Your task to perform on an android device: turn off wifi Image 0: 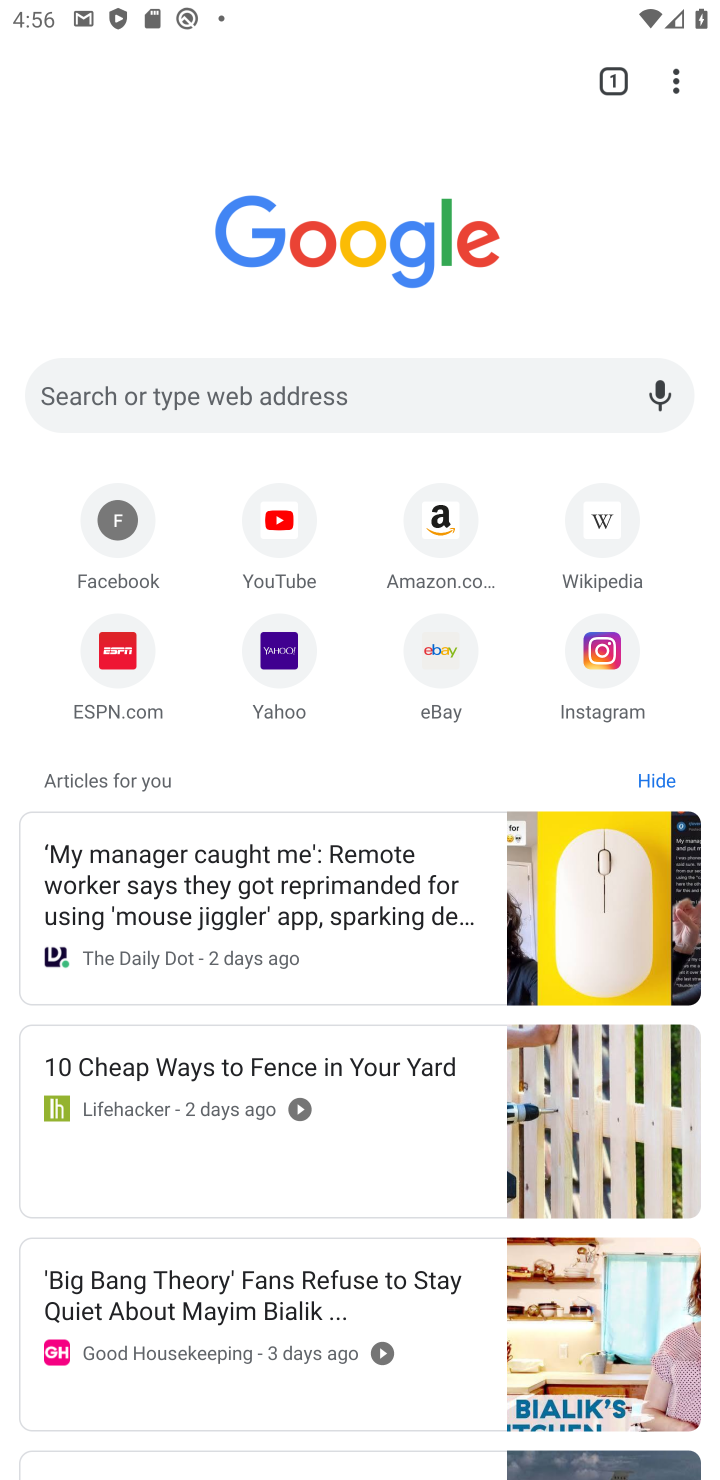
Step 0: press home button
Your task to perform on an android device: turn off wifi Image 1: 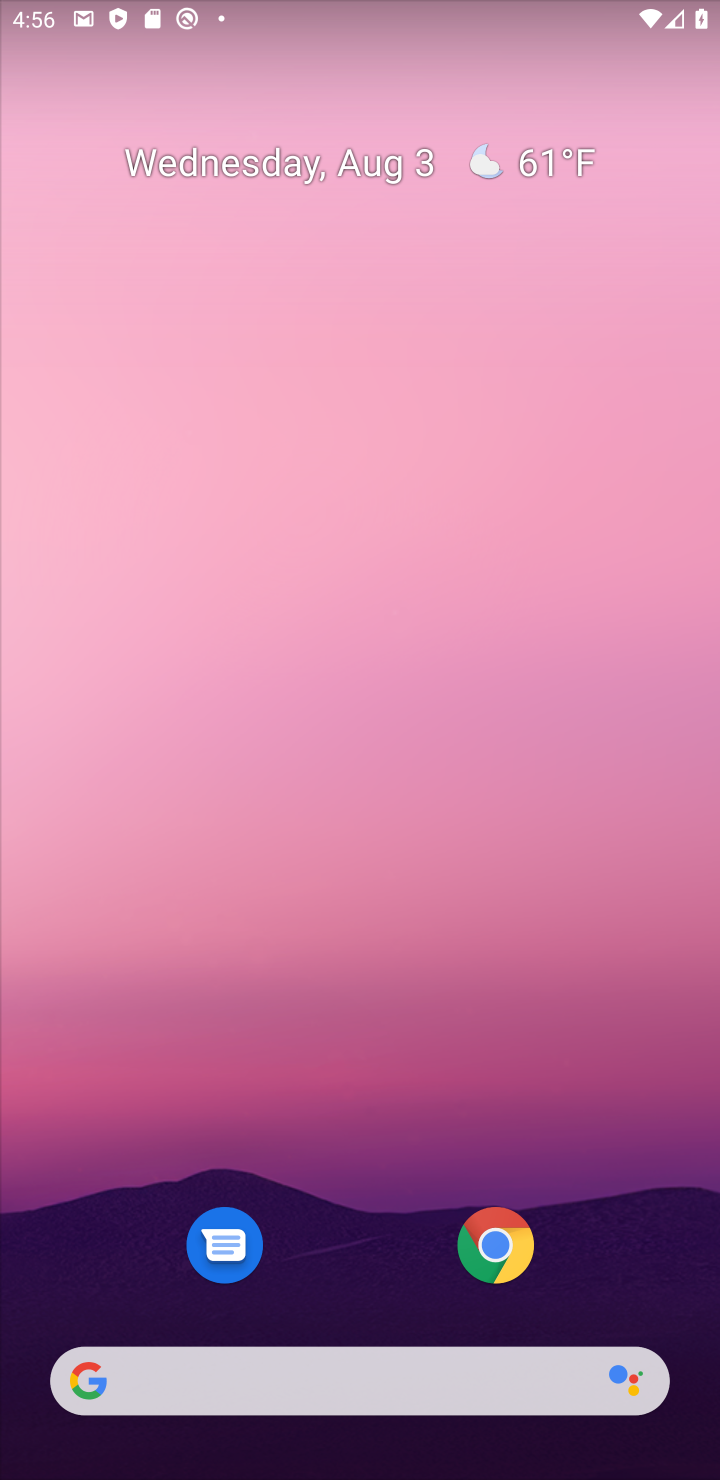
Step 1: drag from (364, 975) to (270, 394)
Your task to perform on an android device: turn off wifi Image 2: 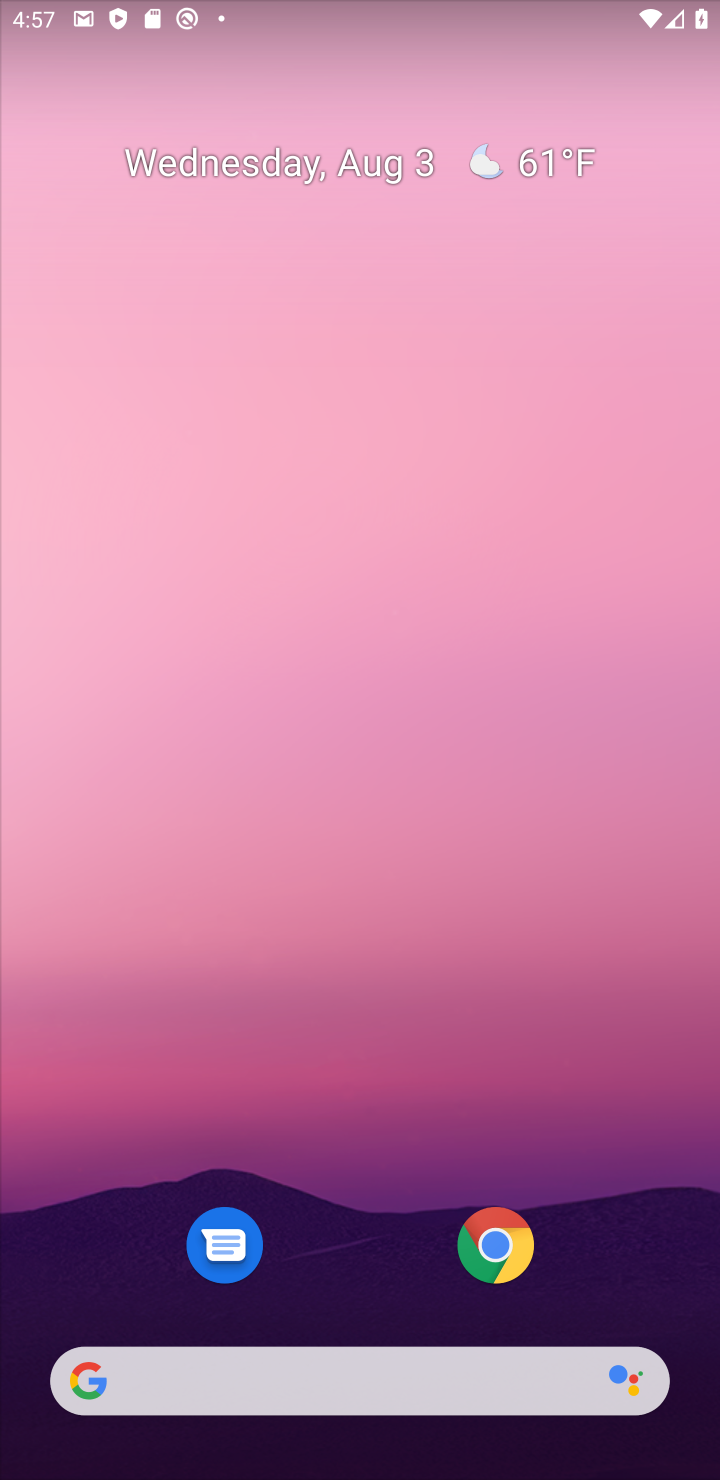
Step 2: drag from (304, 1385) to (353, 299)
Your task to perform on an android device: turn off wifi Image 3: 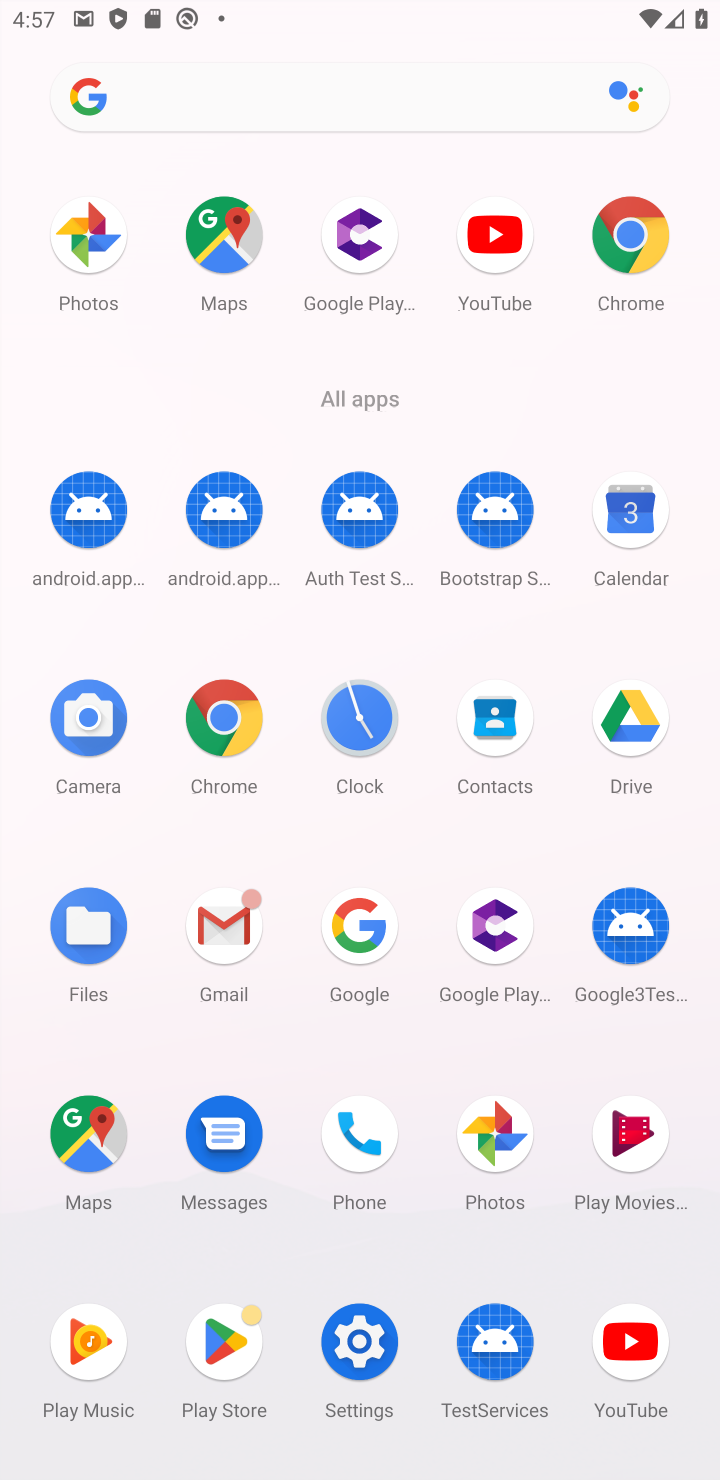
Step 3: click (333, 1393)
Your task to perform on an android device: turn off wifi Image 4: 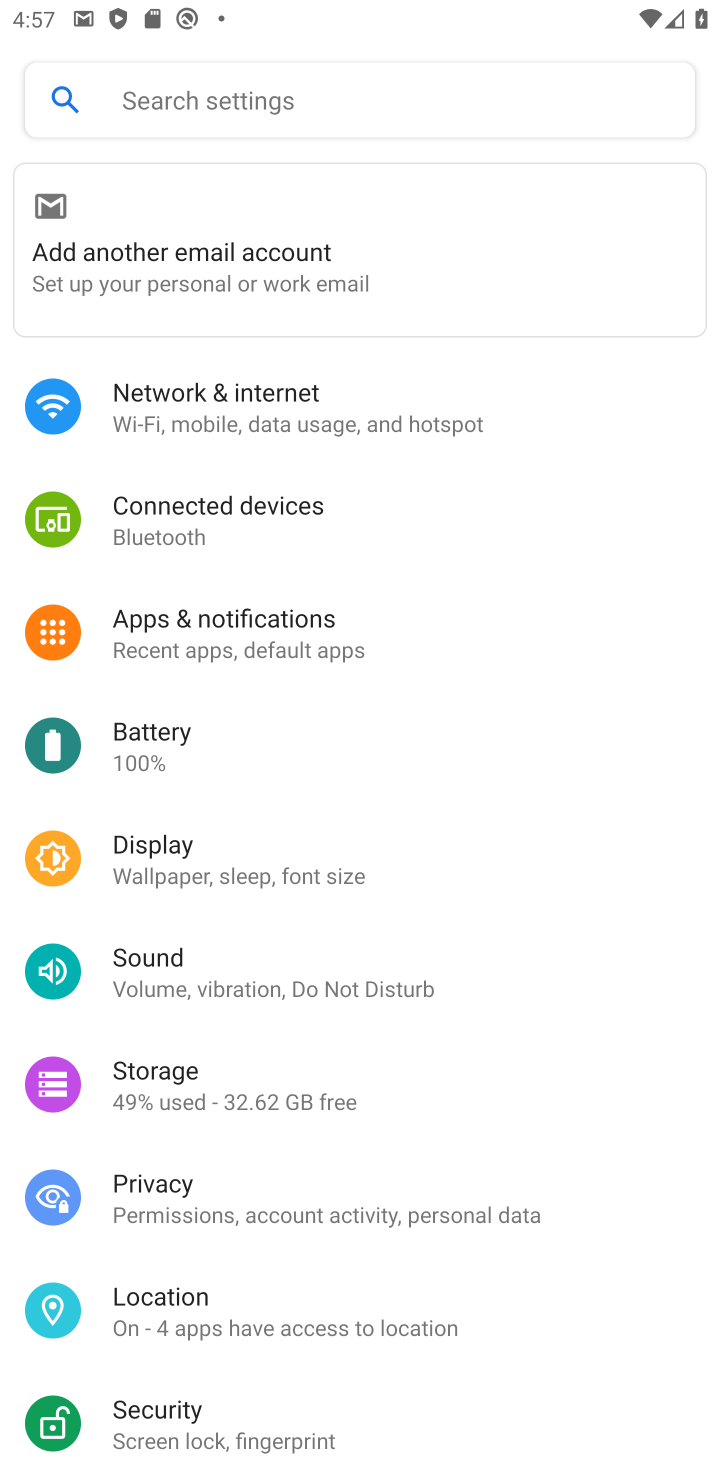
Step 4: click (339, 392)
Your task to perform on an android device: turn off wifi Image 5: 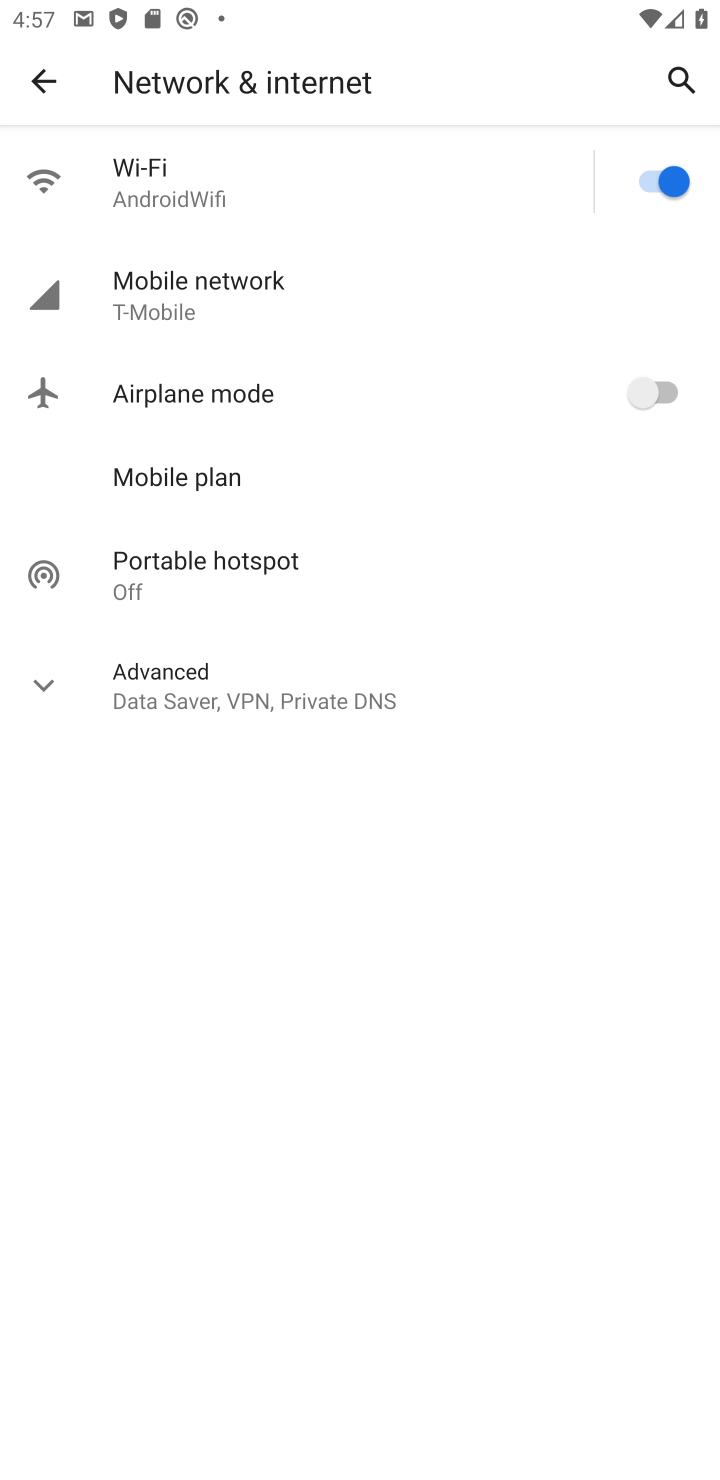
Step 5: click (635, 187)
Your task to perform on an android device: turn off wifi Image 6: 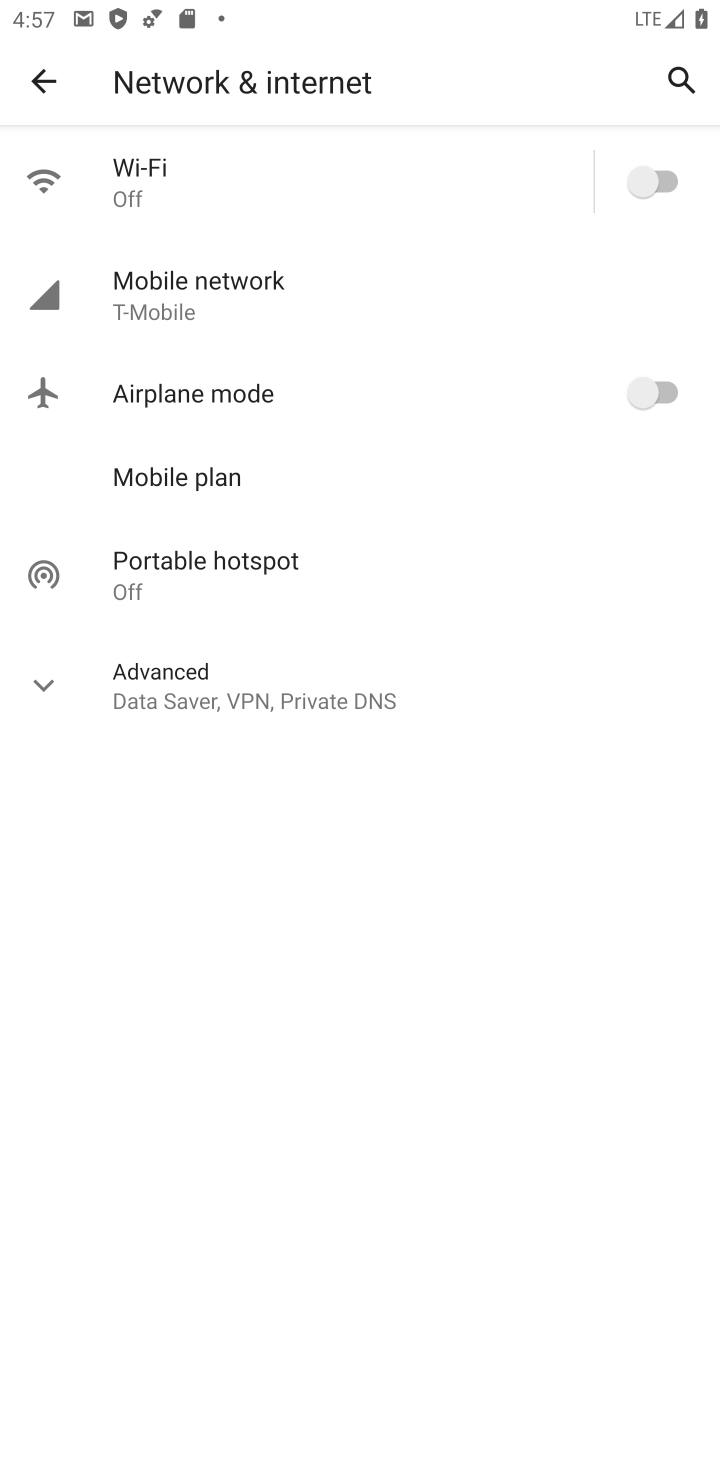
Step 6: task complete